Your task to perform on an android device: Open privacy settings Image 0: 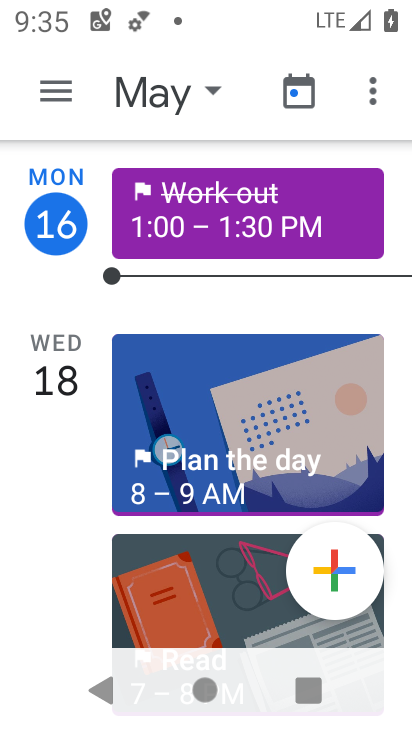
Step 0: press home button
Your task to perform on an android device: Open privacy settings Image 1: 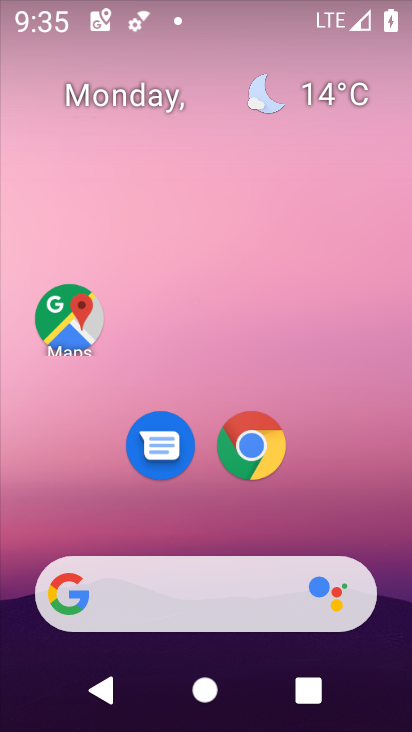
Step 1: drag from (211, 528) to (189, 54)
Your task to perform on an android device: Open privacy settings Image 2: 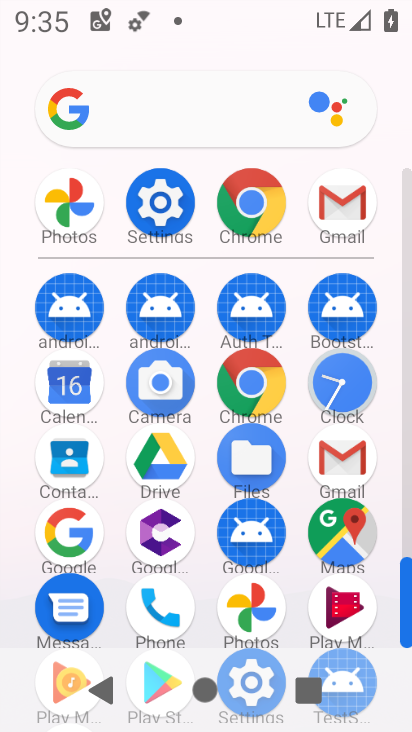
Step 2: click (157, 194)
Your task to perform on an android device: Open privacy settings Image 3: 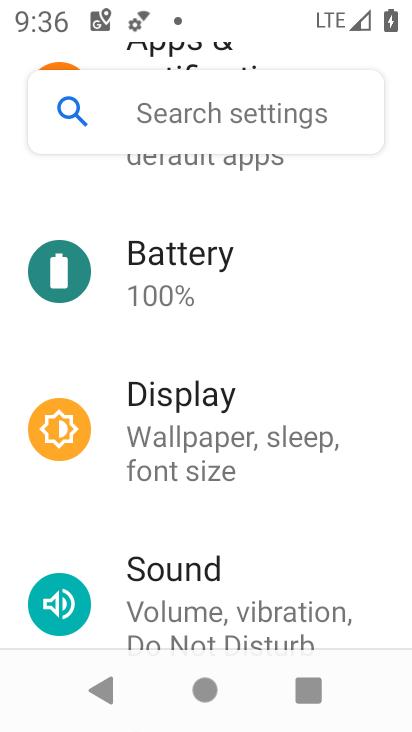
Step 3: drag from (112, 621) to (99, 130)
Your task to perform on an android device: Open privacy settings Image 4: 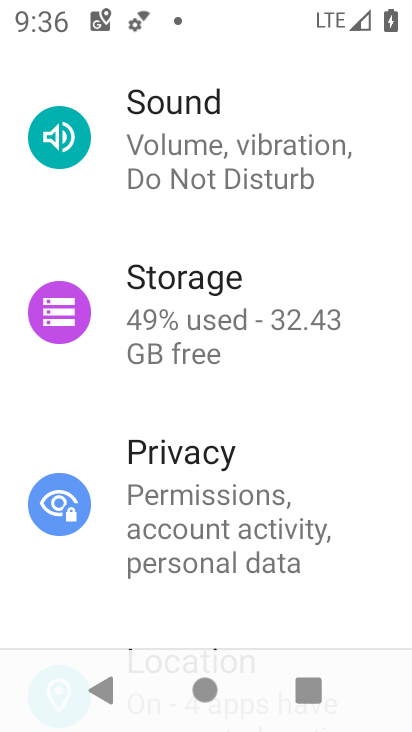
Step 4: click (116, 568)
Your task to perform on an android device: Open privacy settings Image 5: 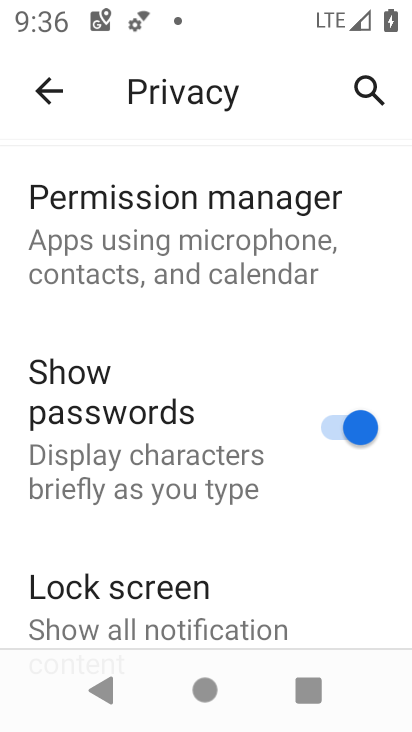
Step 5: drag from (233, 588) to (221, 235)
Your task to perform on an android device: Open privacy settings Image 6: 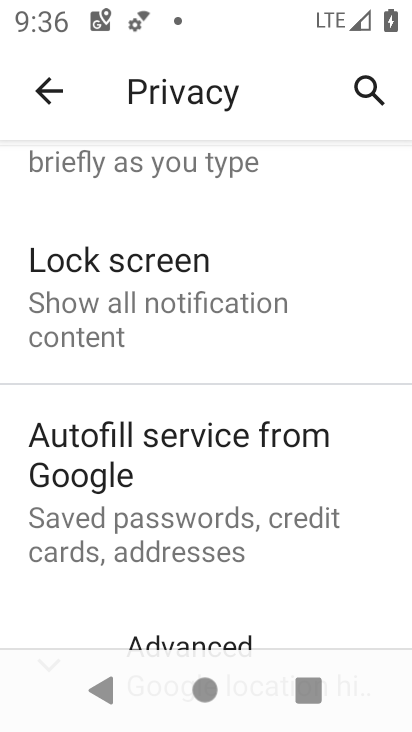
Step 6: drag from (199, 599) to (190, 150)
Your task to perform on an android device: Open privacy settings Image 7: 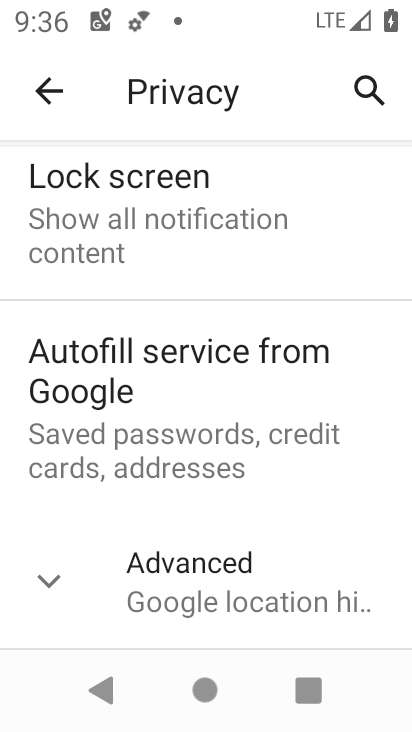
Step 7: click (56, 585)
Your task to perform on an android device: Open privacy settings Image 8: 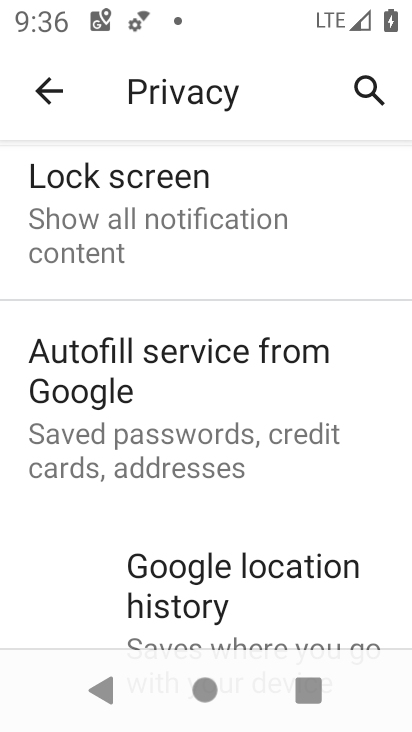
Step 8: task complete